Your task to perform on an android device: check storage Image 0: 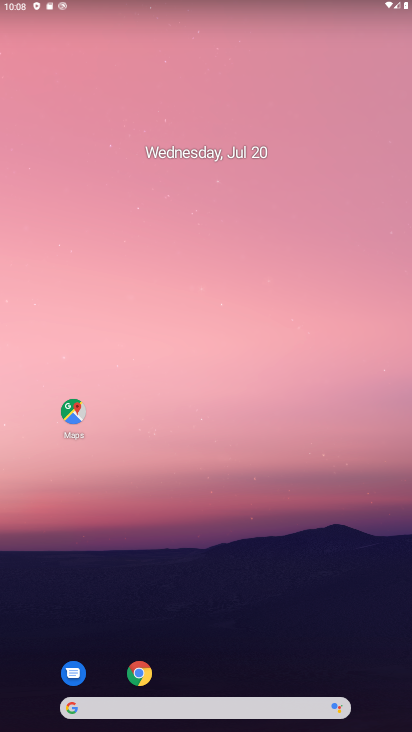
Step 0: drag from (183, 652) to (150, 114)
Your task to perform on an android device: check storage Image 1: 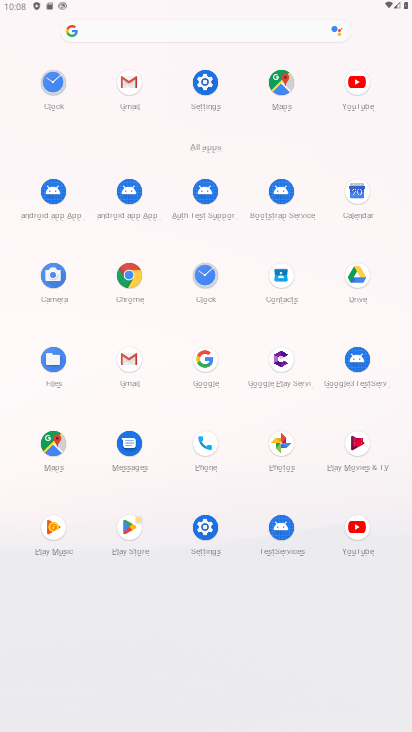
Step 1: click (200, 83)
Your task to perform on an android device: check storage Image 2: 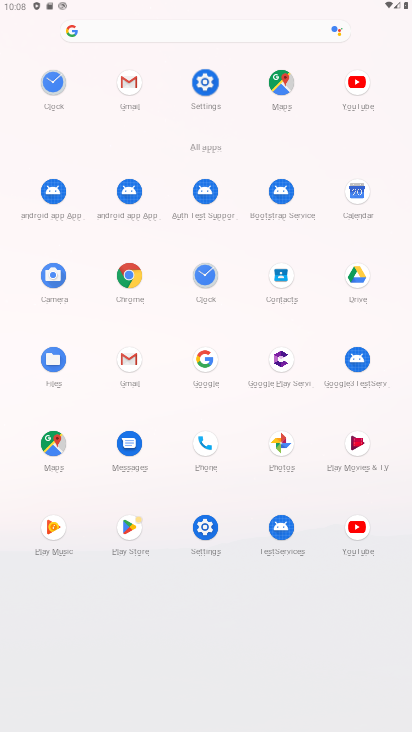
Step 2: click (202, 85)
Your task to perform on an android device: check storage Image 3: 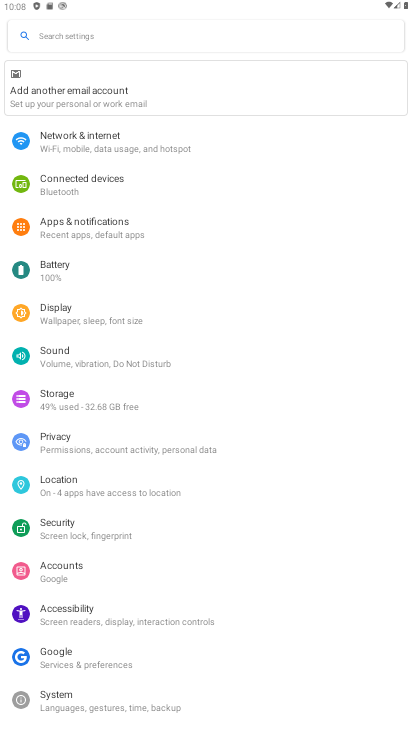
Step 3: click (57, 402)
Your task to perform on an android device: check storage Image 4: 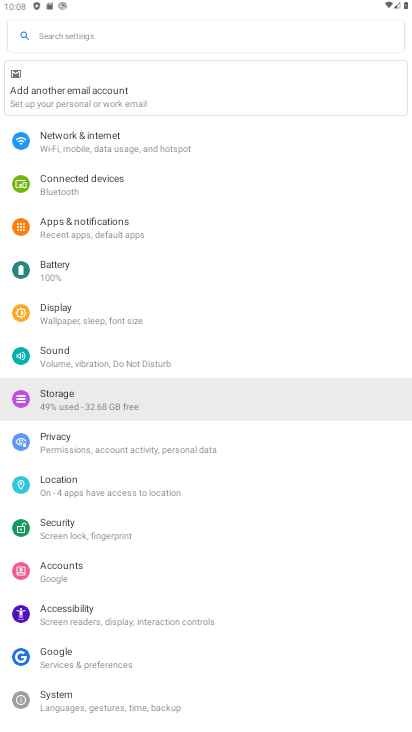
Step 4: click (58, 399)
Your task to perform on an android device: check storage Image 5: 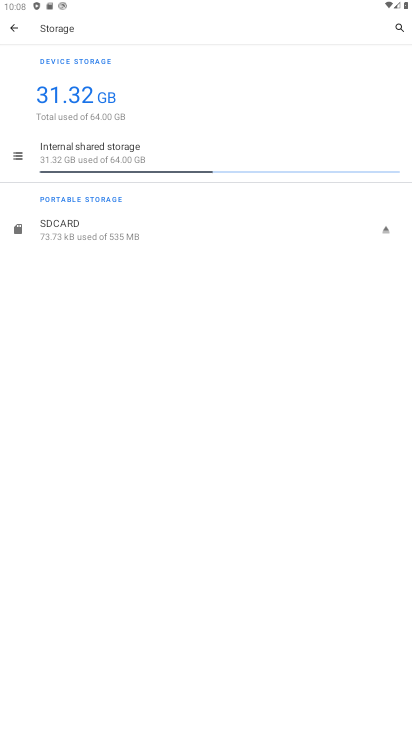
Step 5: task complete